Your task to perform on an android device: change the clock display to show seconds Image 0: 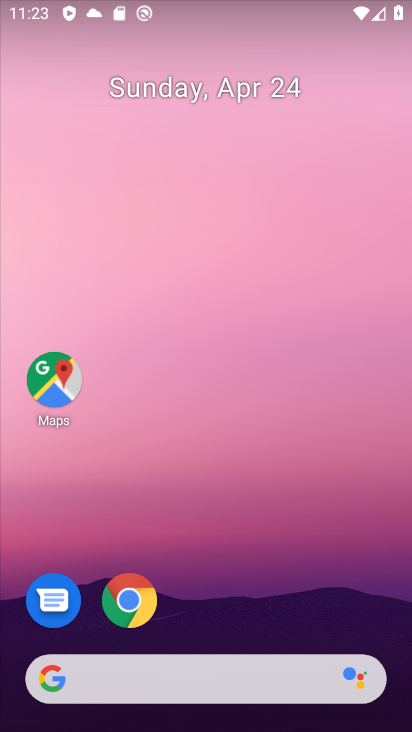
Step 0: drag from (257, 592) to (343, 11)
Your task to perform on an android device: change the clock display to show seconds Image 1: 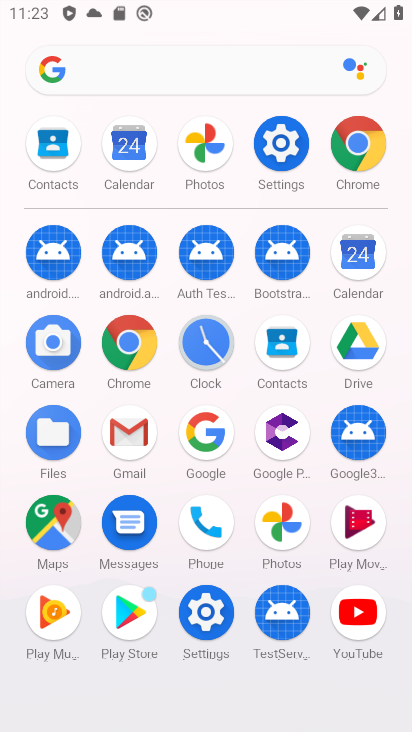
Step 1: click (205, 353)
Your task to perform on an android device: change the clock display to show seconds Image 2: 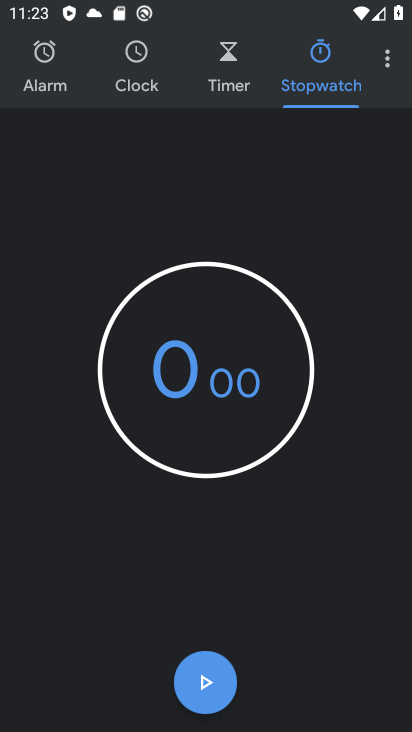
Step 2: click (387, 58)
Your task to perform on an android device: change the clock display to show seconds Image 3: 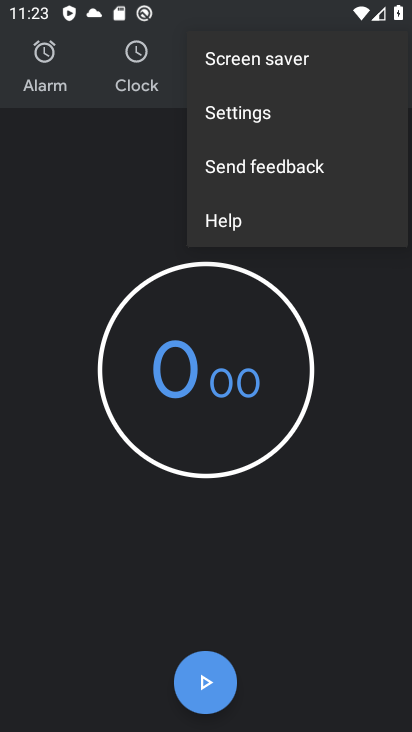
Step 3: click (251, 105)
Your task to perform on an android device: change the clock display to show seconds Image 4: 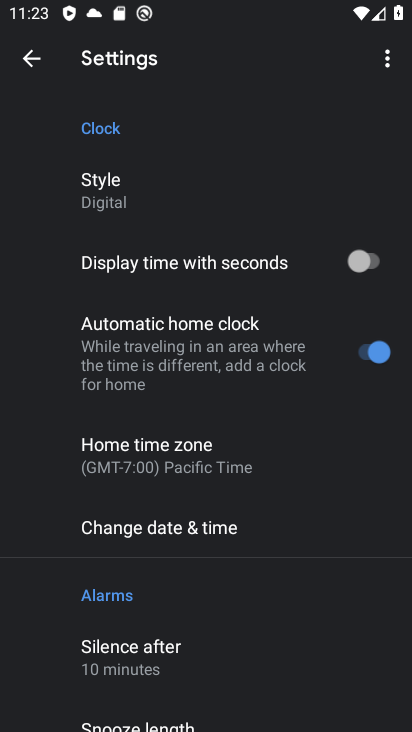
Step 4: click (355, 263)
Your task to perform on an android device: change the clock display to show seconds Image 5: 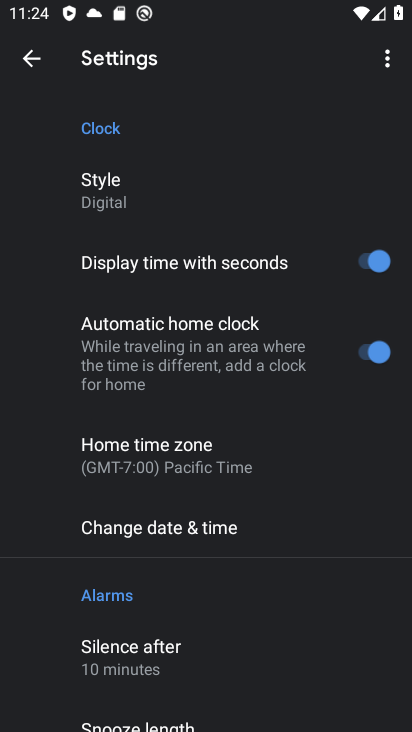
Step 5: task complete